Your task to perform on an android device: change the upload size in google photos Image 0: 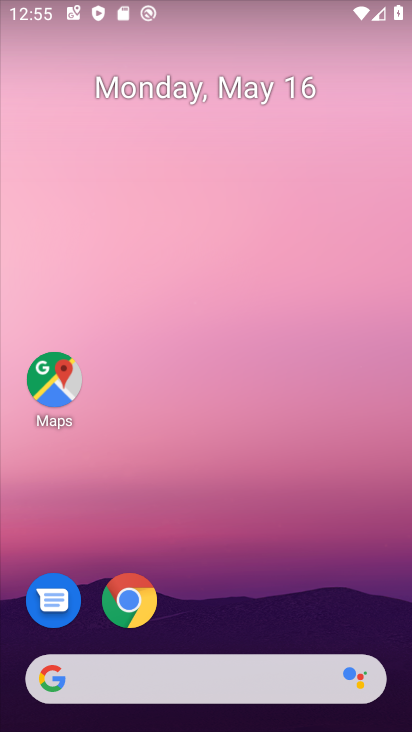
Step 0: drag from (204, 605) to (250, 119)
Your task to perform on an android device: change the upload size in google photos Image 1: 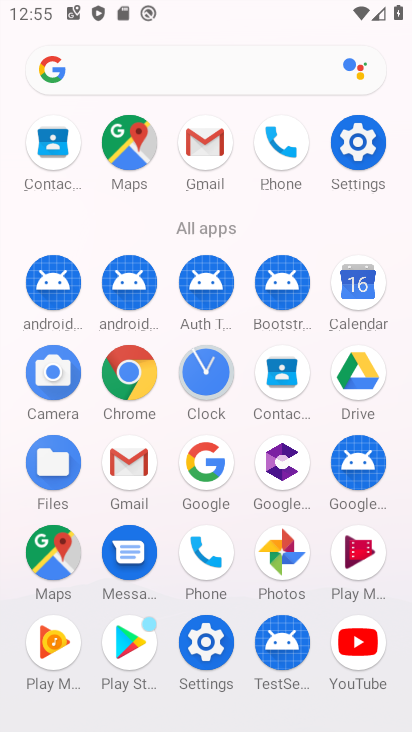
Step 1: click (280, 558)
Your task to perform on an android device: change the upload size in google photos Image 2: 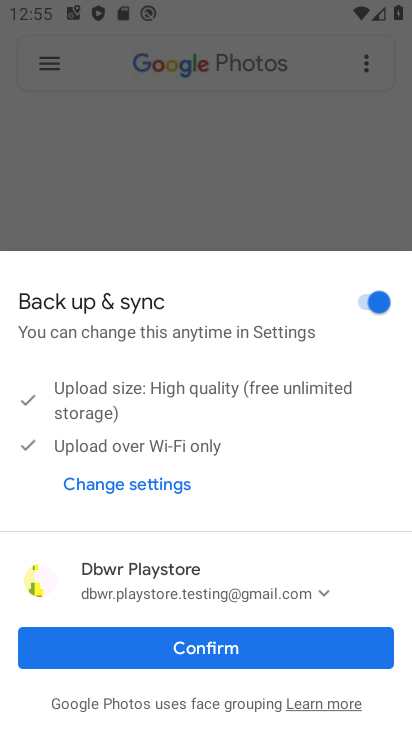
Step 2: click (261, 651)
Your task to perform on an android device: change the upload size in google photos Image 3: 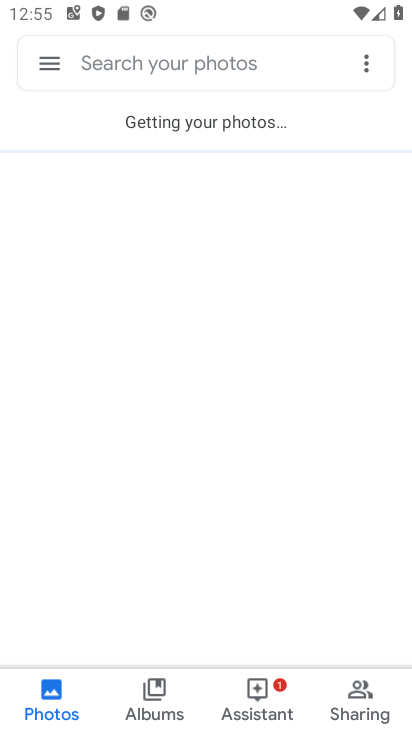
Step 3: click (53, 66)
Your task to perform on an android device: change the upload size in google photos Image 4: 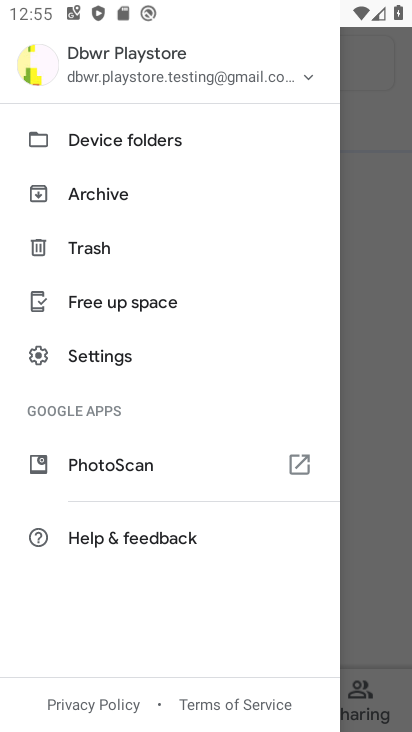
Step 4: click (130, 355)
Your task to perform on an android device: change the upload size in google photos Image 5: 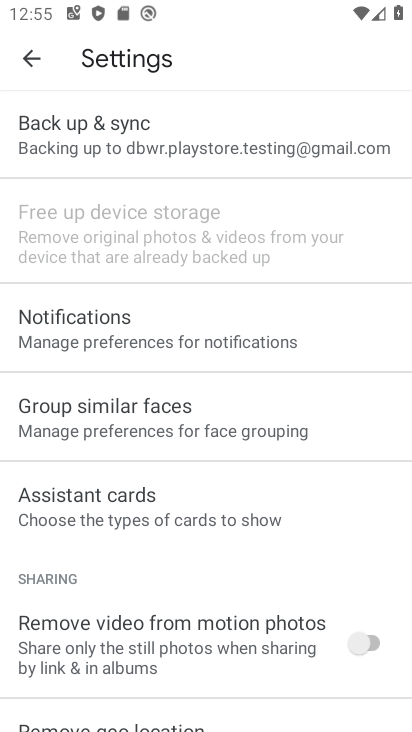
Step 5: click (170, 155)
Your task to perform on an android device: change the upload size in google photos Image 6: 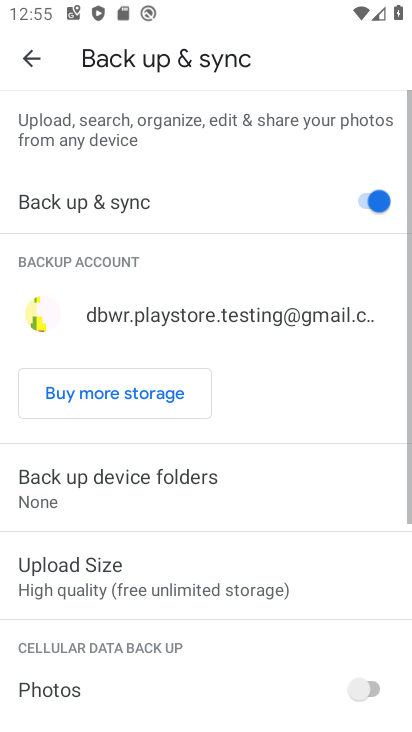
Step 6: click (125, 567)
Your task to perform on an android device: change the upload size in google photos Image 7: 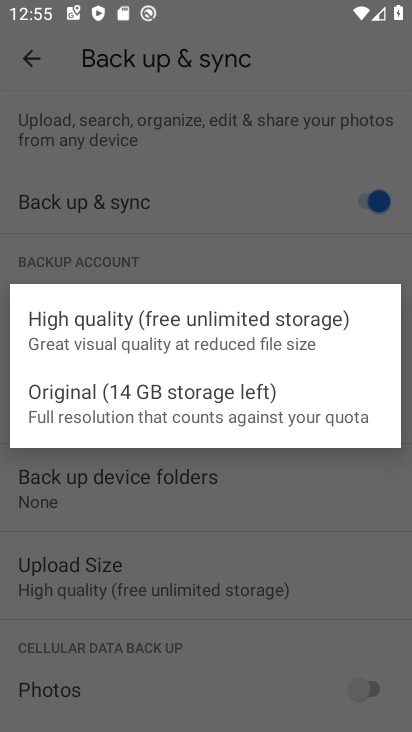
Step 7: click (131, 404)
Your task to perform on an android device: change the upload size in google photos Image 8: 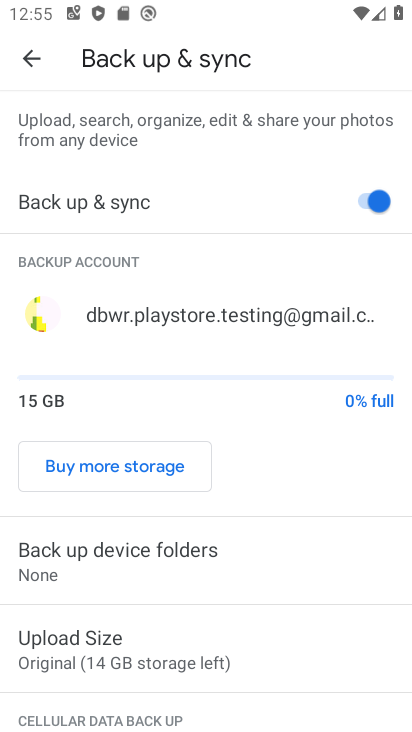
Step 8: task complete